Your task to perform on an android device: Do I have any events today? Image 0: 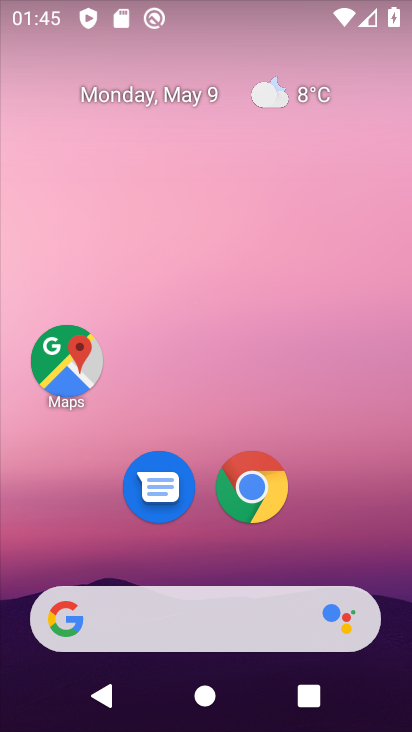
Step 0: drag from (329, 500) to (283, 86)
Your task to perform on an android device: Do I have any events today? Image 1: 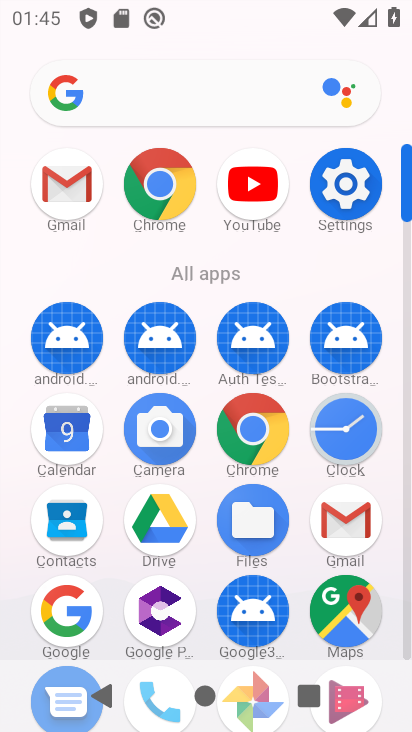
Step 1: click (71, 438)
Your task to perform on an android device: Do I have any events today? Image 2: 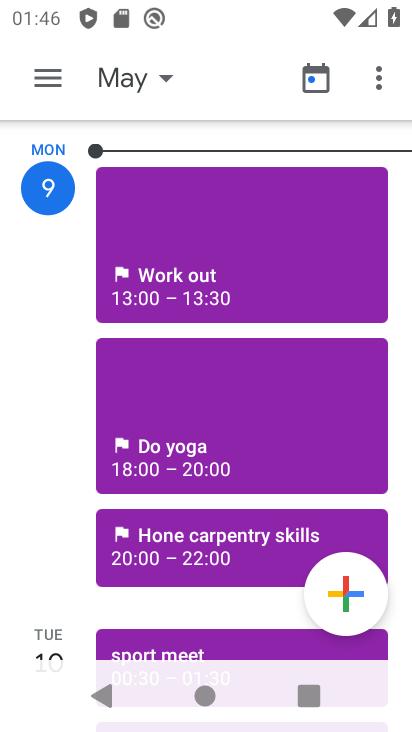
Step 2: task complete